Your task to perform on an android device: clear history in the chrome app Image 0: 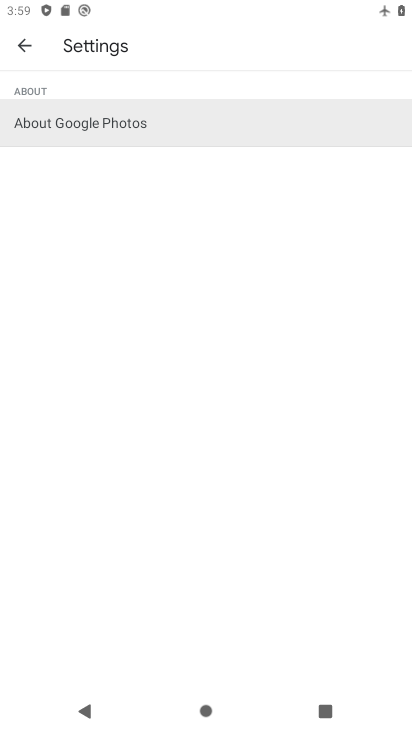
Step 0: press home button
Your task to perform on an android device: clear history in the chrome app Image 1: 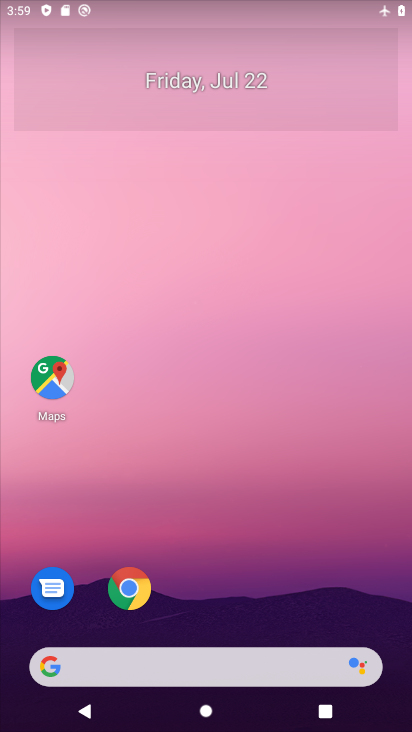
Step 1: click (131, 602)
Your task to perform on an android device: clear history in the chrome app Image 2: 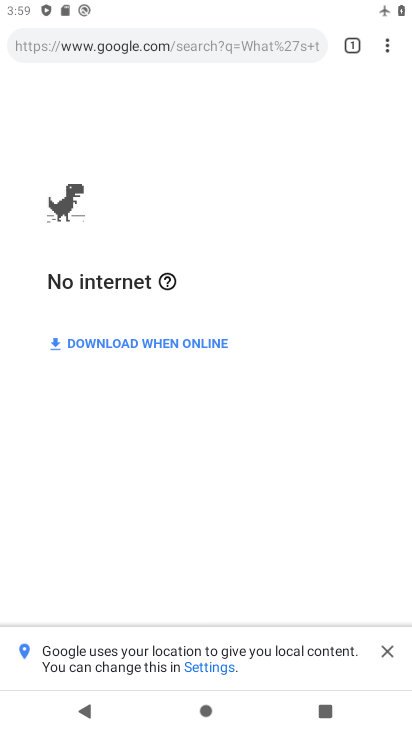
Step 2: click (394, 51)
Your task to perform on an android device: clear history in the chrome app Image 3: 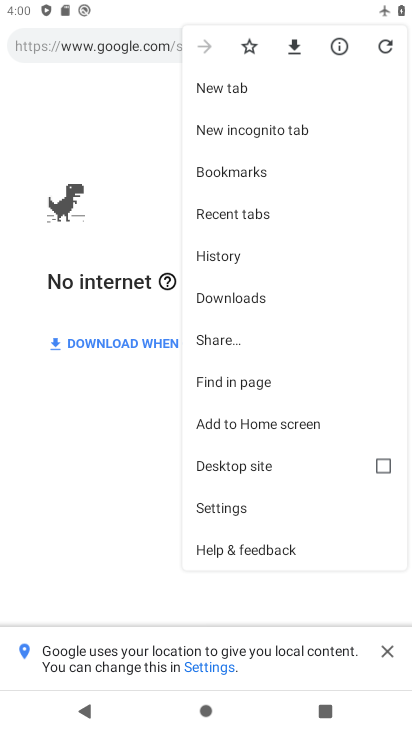
Step 3: click (221, 263)
Your task to perform on an android device: clear history in the chrome app Image 4: 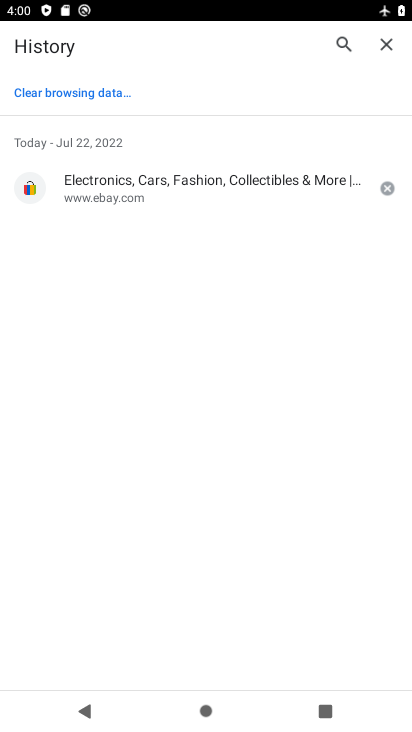
Step 4: click (88, 100)
Your task to perform on an android device: clear history in the chrome app Image 5: 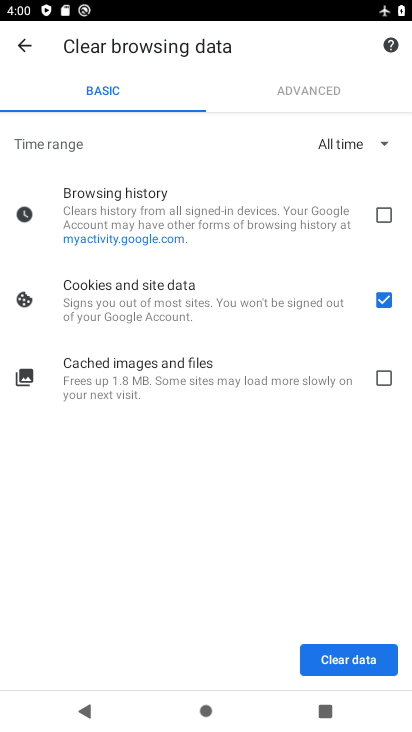
Step 5: click (382, 300)
Your task to perform on an android device: clear history in the chrome app Image 6: 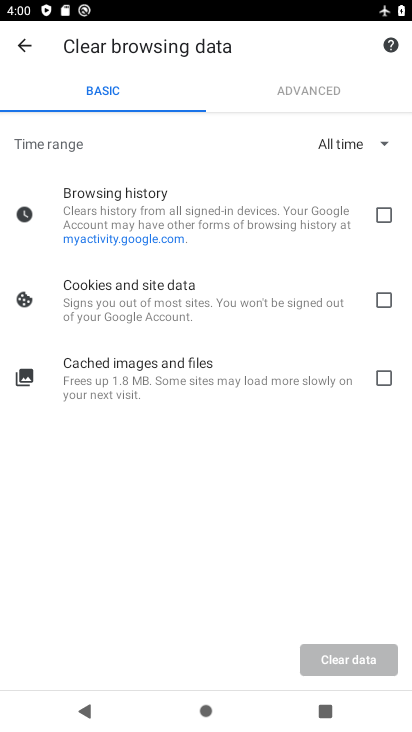
Step 6: click (387, 216)
Your task to perform on an android device: clear history in the chrome app Image 7: 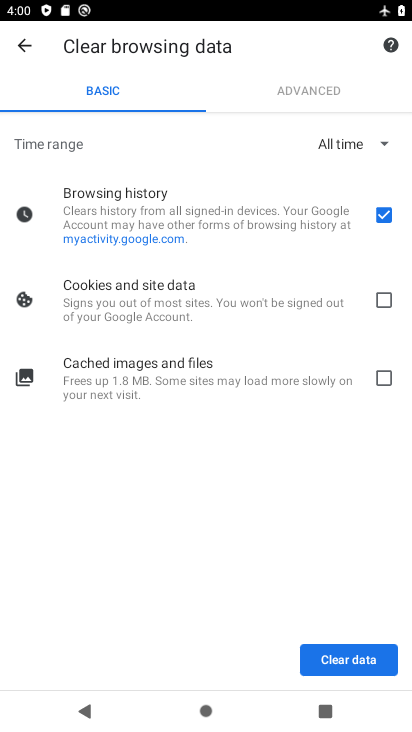
Step 7: click (382, 658)
Your task to perform on an android device: clear history in the chrome app Image 8: 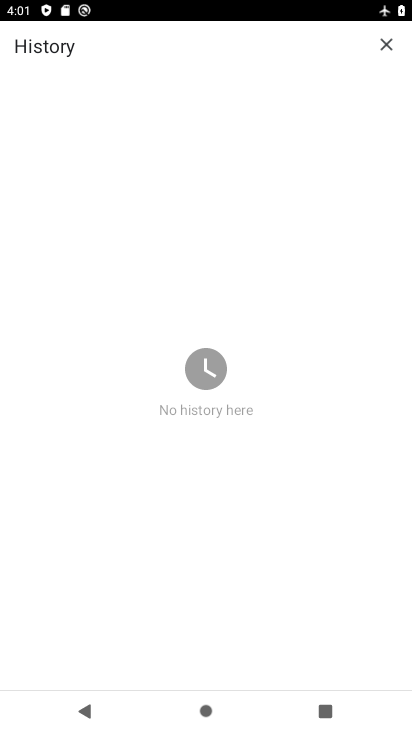
Step 8: task complete